Your task to perform on an android device: Search for Italian restaurants on Maps Image 0: 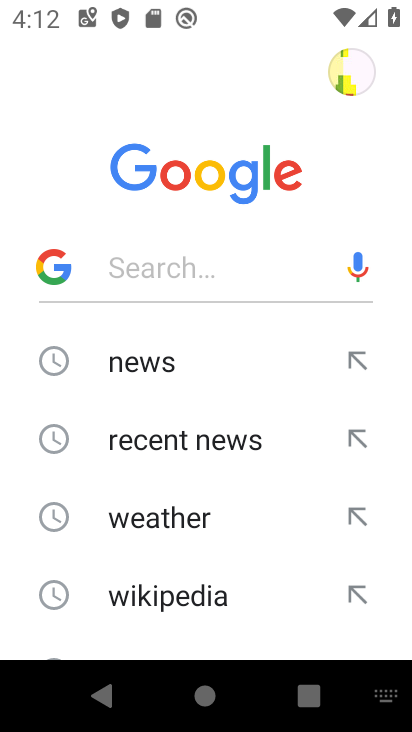
Step 0: press home button
Your task to perform on an android device: Search for Italian restaurants on Maps Image 1: 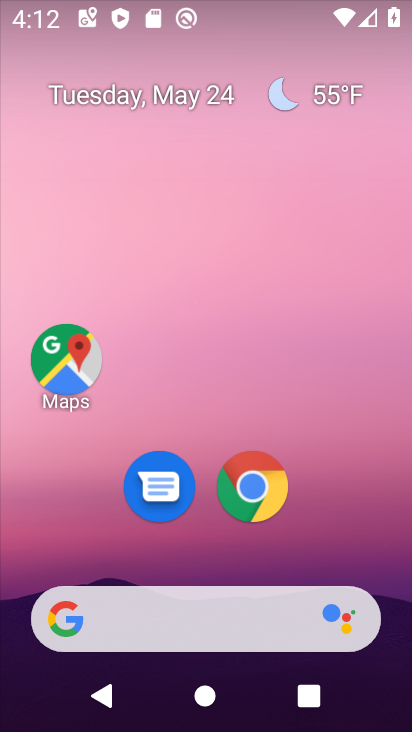
Step 1: click (82, 354)
Your task to perform on an android device: Search for Italian restaurants on Maps Image 2: 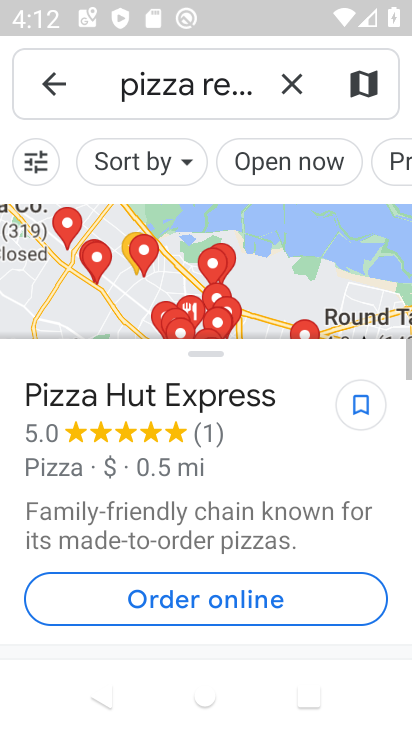
Step 2: click (299, 90)
Your task to perform on an android device: Search for Italian restaurants on Maps Image 3: 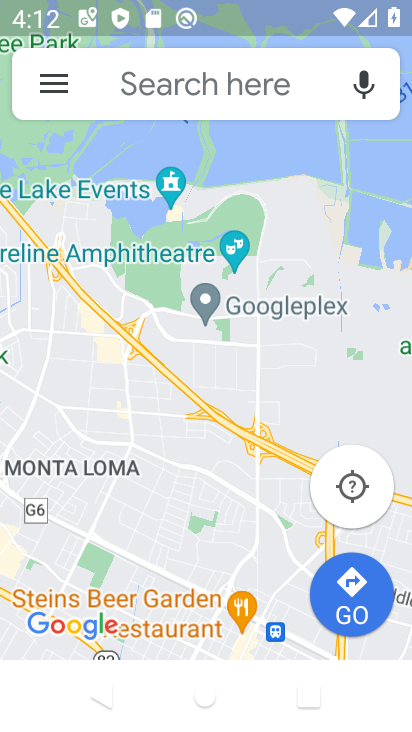
Step 3: click (130, 66)
Your task to perform on an android device: Search for Italian restaurants on Maps Image 4: 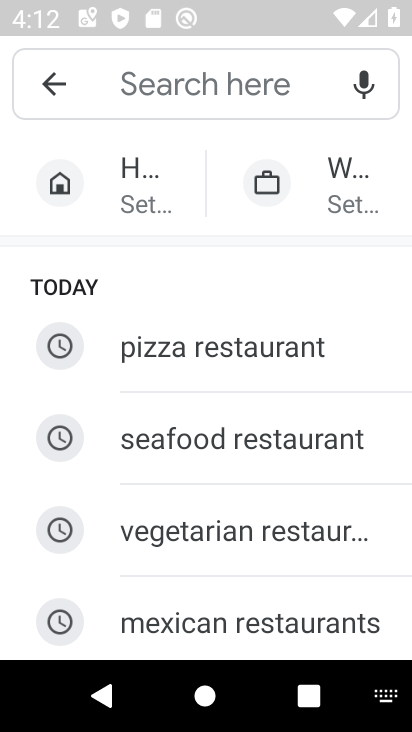
Step 4: drag from (121, 554) to (117, 128)
Your task to perform on an android device: Search for Italian restaurants on Maps Image 5: 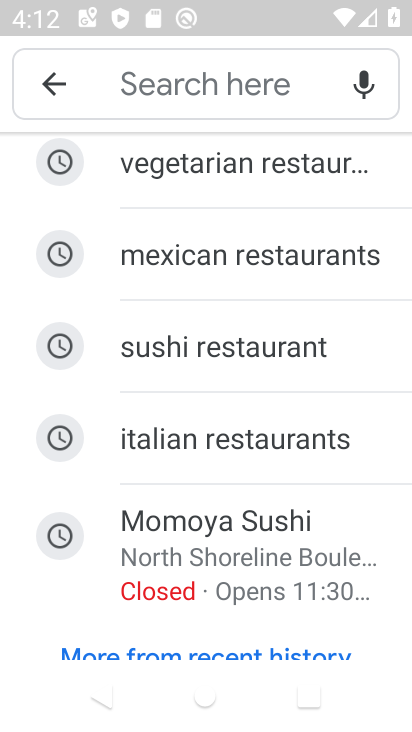
Step 5: click (175, 434)
Your task to perform on an android device: Search for Italian restaurants on Maps Image 6: 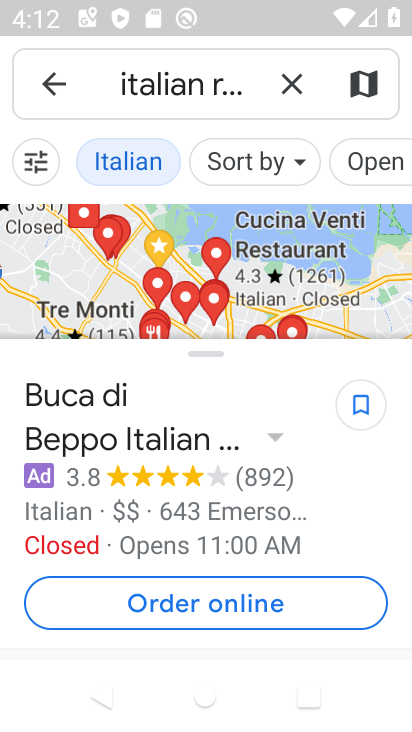
Step 6: task complete